Your task to perform on an android device: Turn off the flashlight Image 0: 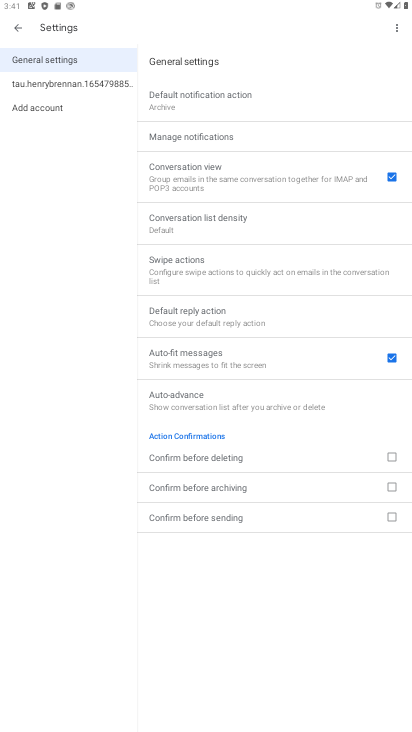
Step 0: press home button
Your task to perform on an android device: Turn off the flashlight Image 1: 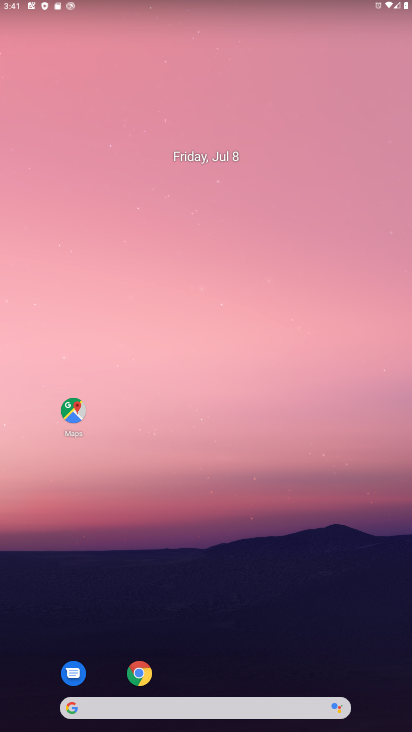
Step 1: drag from (272, 608) to (243, 181)
Your task to perform on an android device: Turn off the flashlight Image 2: 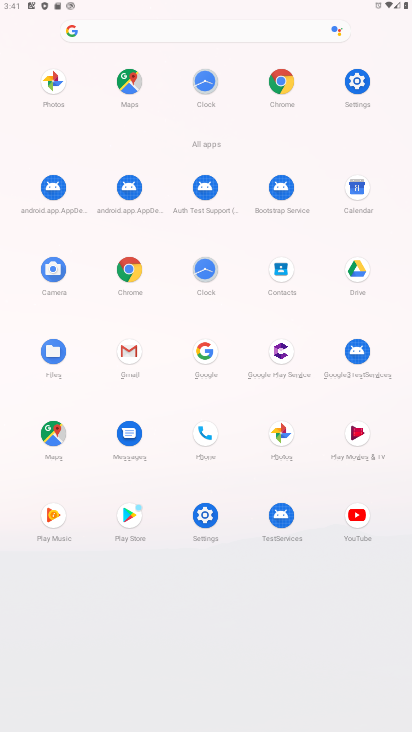
Step 2: click (354, 89)
Your task to perform on an android device: Turn off the flashlight Image 3: 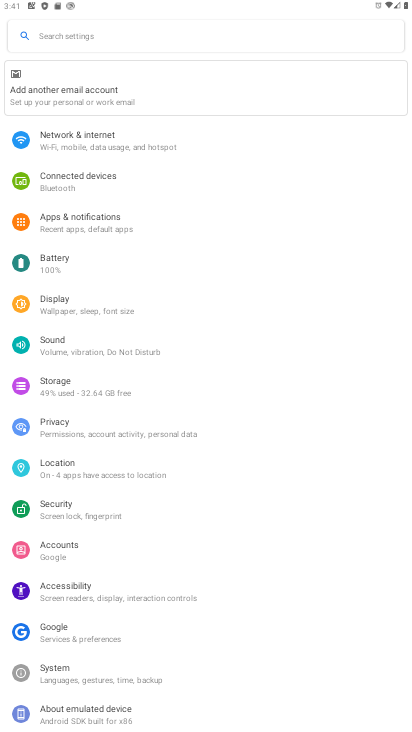
Step 3: click (127, 41)
Your task to perform on an android device: Turn off the flashlight Image 4: 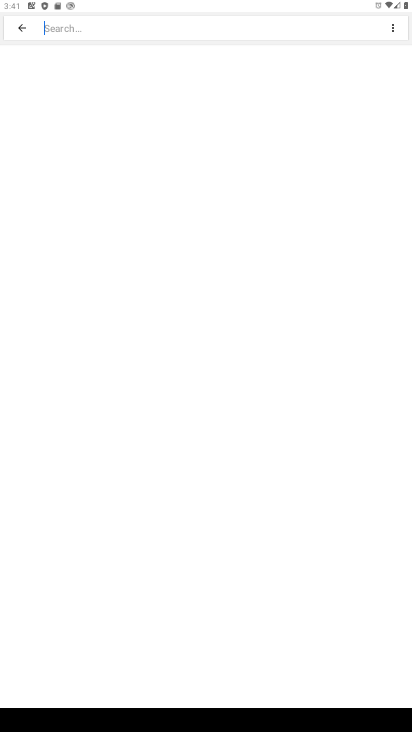
Step 4: type "flashlight"
Your task to perform on an android device: Turn off the flashlight Image 5: 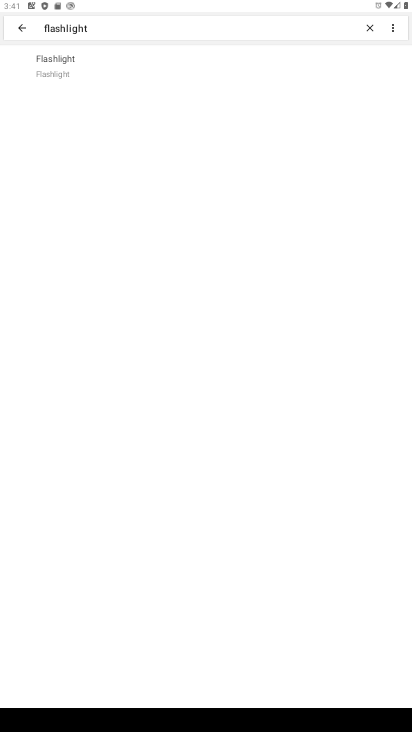
Step 5: click (45, 64)
Your task to perform on an android device: Turn off the flashlight Image 6: 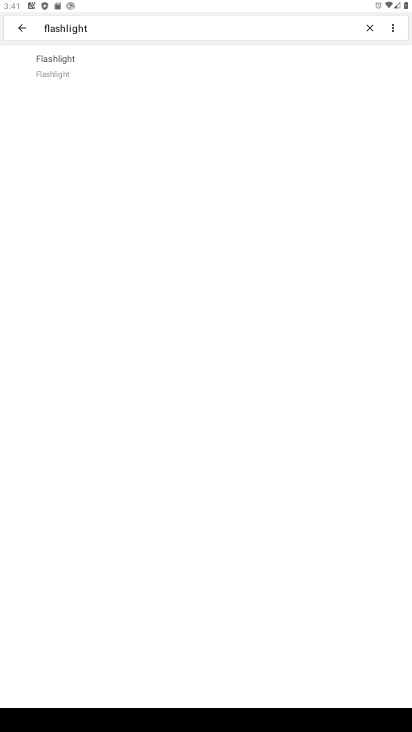
Step 6: click (45, 64)
Your task to perform on an android device: Turn off the flashlight Image 7: 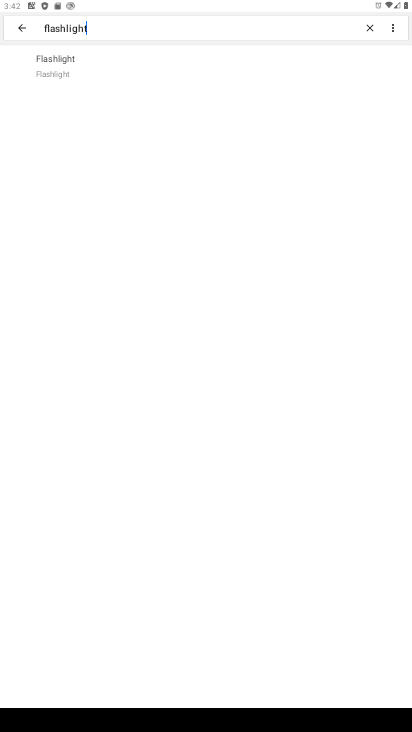
Step 7: task complete